Your task to perform on an android device: allow notifications from all sites in the chrome app Image 0: 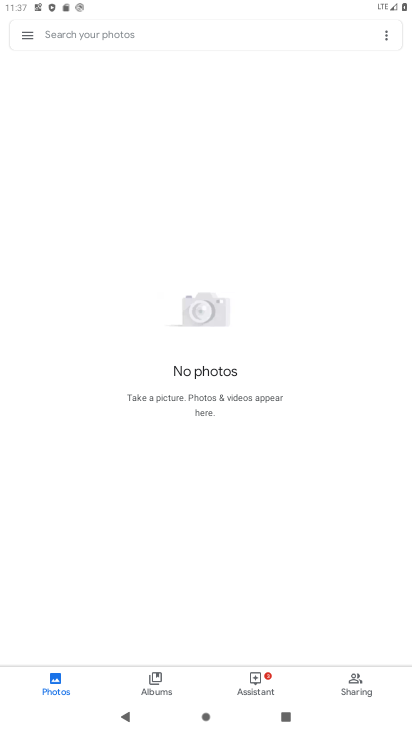
Step 0: press home button
Your task to perform on an android device: allow notifications from all sites in the chrome app Image 1: 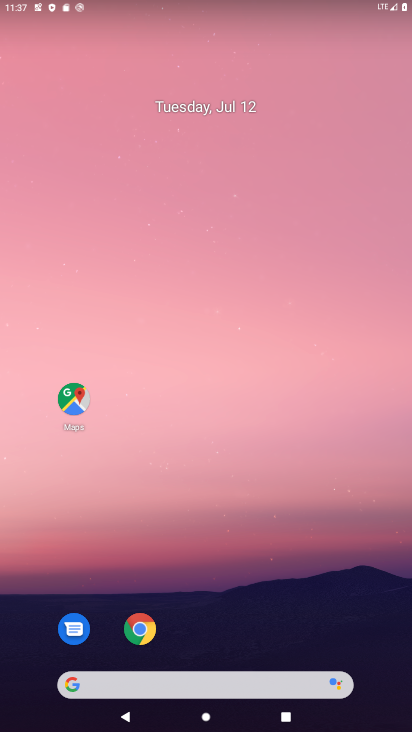
Step 1: click (138, 626)
Your task to perform on an android device: allow notifications from all sites in the chrome app Image 2: 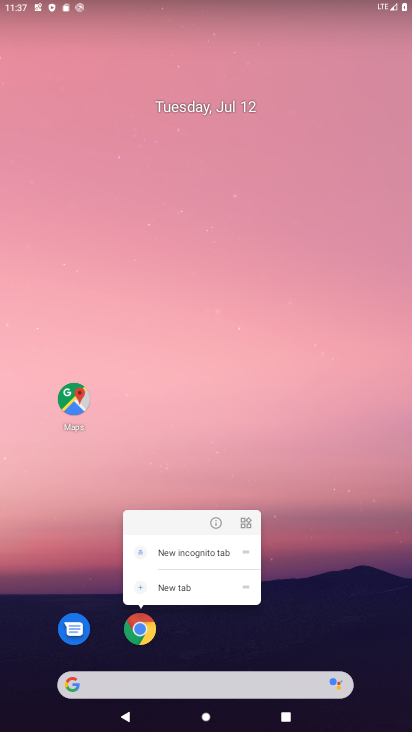
Step 2: click (138, 620)
Your task to perform on an android device: allow notifications from all sites in the chrome app Image 3: 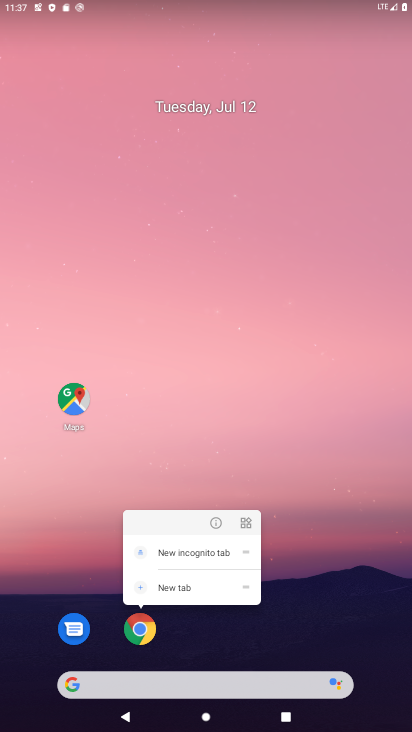
Step 3: click (137, 623)
Your task to perform on an android device: allow notifications from all sites in the chrome app Image 4: 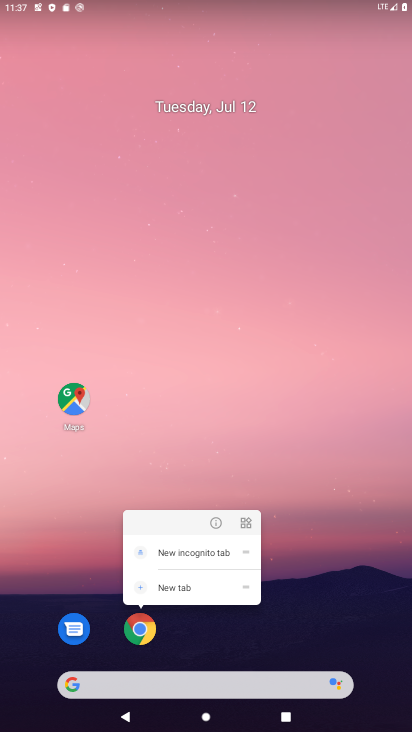
Step 4: click (137, 623)
Your task to perform on an android device: allow notifications from all sites in the chrome app Image 5: 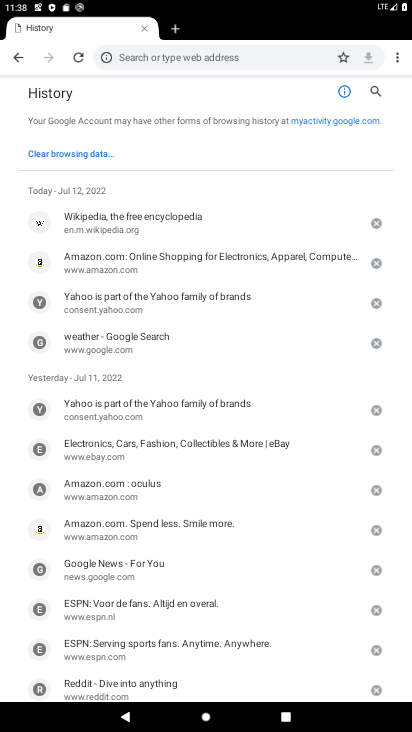
Step 5: click (400, 53)
Your task to perform on an android device: allow notifications from all sites in the chrome app Image 6: 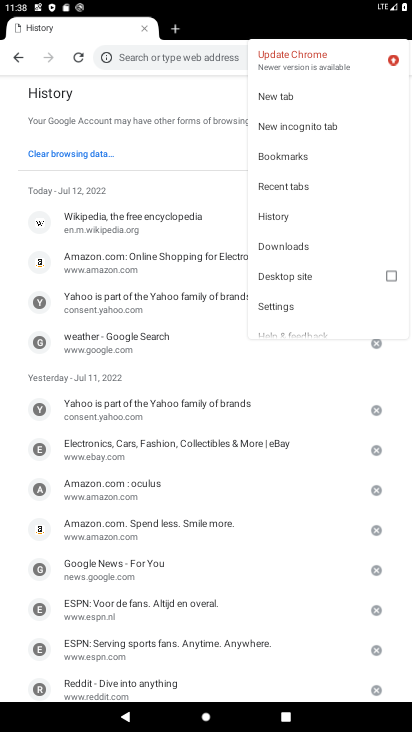
Step 6: click (292, 304)
Your task to perform on an android device: allow notifications from all sites in the chrome app Image 7: 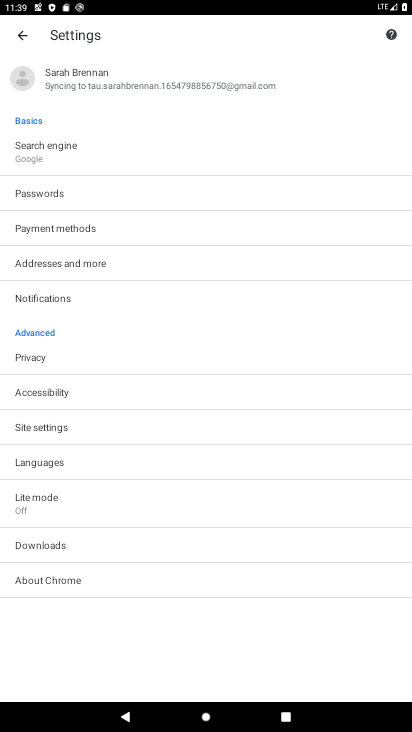
Step 7: click (84, 428)
Your task to perform on an android device: allow notifications from all sites in the chrome app Image 8: 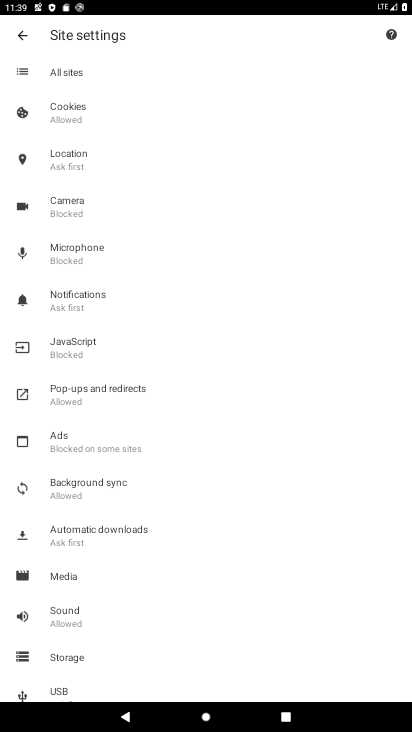
Step 8: click (95, 67)
Your task to perform on an android device: allow notifications from all sites in the chrome app Image 9: 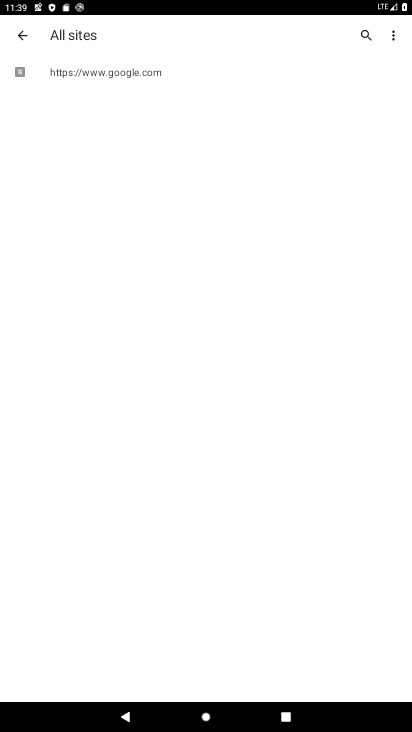
Step 9: click (91, 70)
Your task to perform on an android device: allow notifications from all sites in the chrome app Image 10: 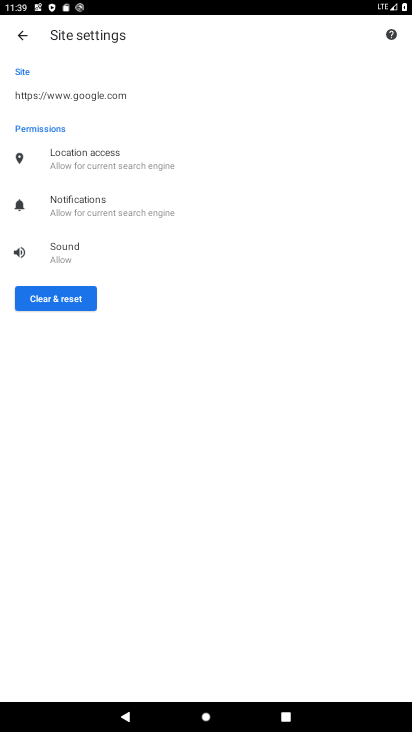
Step 10: task complete